Your task to perform on an android device: star an email in the gmail app Image 0: 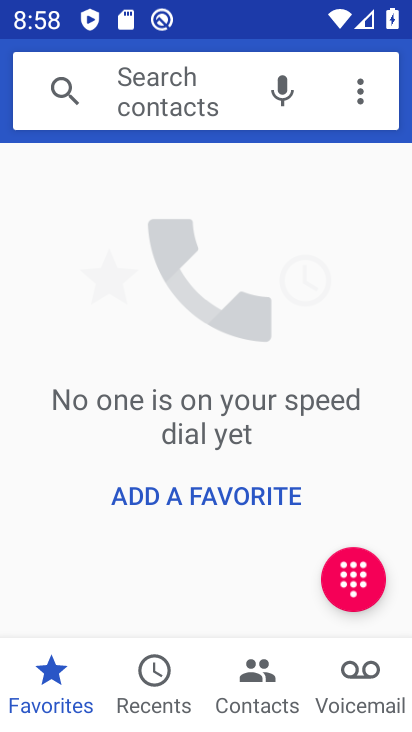
Step 0: press home button
Your task to perform on an android device: star an email in the gmail app Image 1: 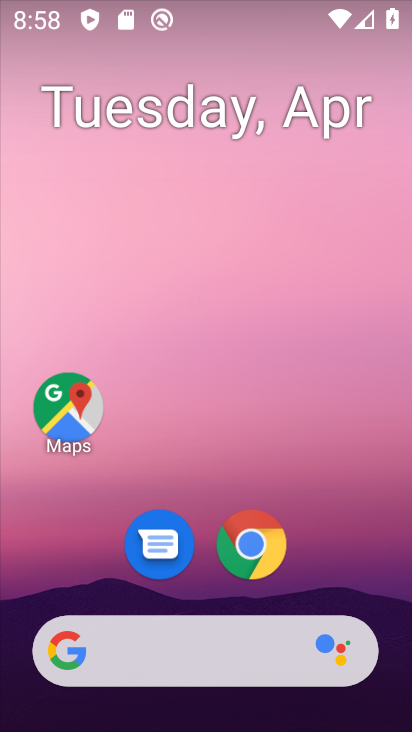
Step 1: drag from (314, 201) to (314, 127)
Your task to perform on an android device: star an email in the gmail app Image 2: 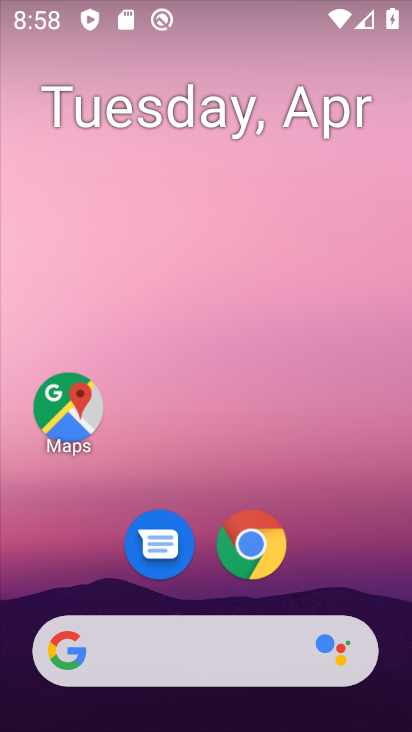
Step 2: drag from (334, 504) to (347, 155)
Your task to perform on an android device: star an email in the gmail app Image 3: 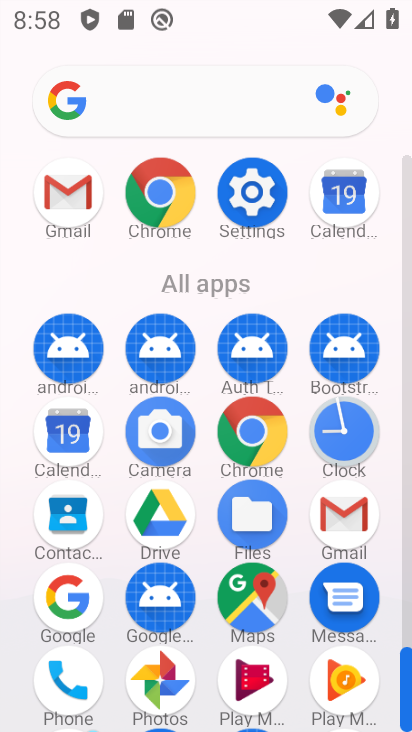
Step 3: click (359, 513)
Your task to perform on an android device: star an email in the gmail app Image 4: 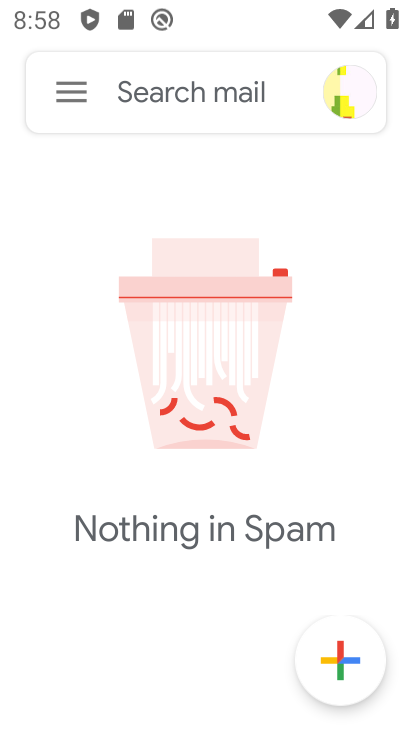
Step 4: click (65, 99)
Your task to perform on an android device: star an email in the gmail app Image 5: 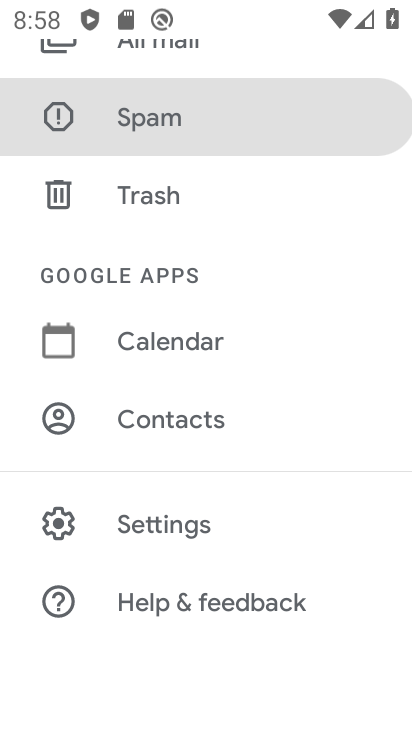
Step 5: drag from (224, 194) to (229, 545)
Your task to perform on an android device: star an email in the gmail app Image 6: 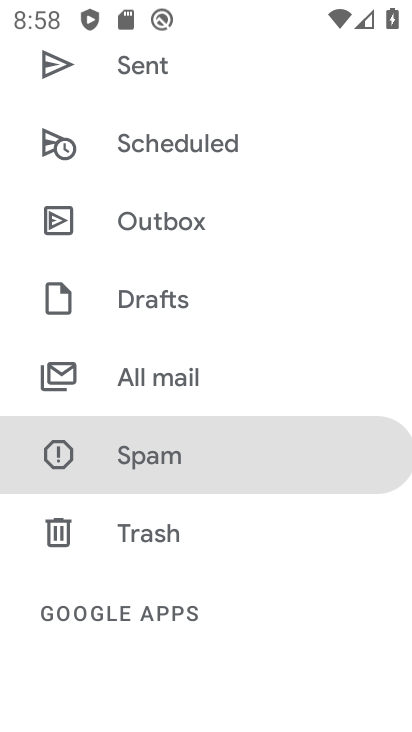
Step 6: drag from (281, 300) to (256, 599)
Your task to perform on an android device: star an email in the gmail app Image 7: 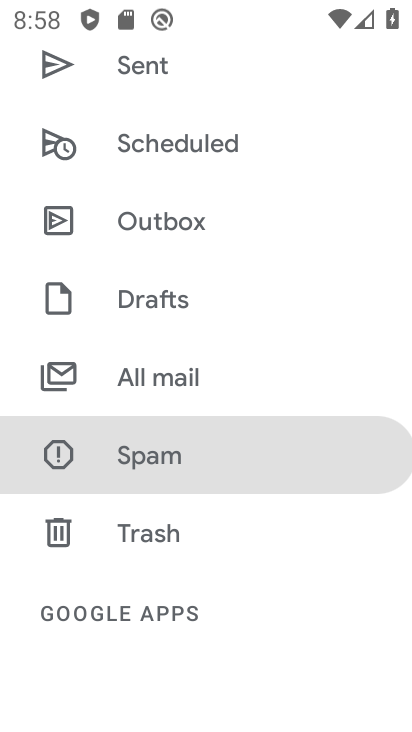
Step 7: drag from (254, 316) to (234, 628)
Your task to perform on an android device: star an email in the gmail app Image 8: 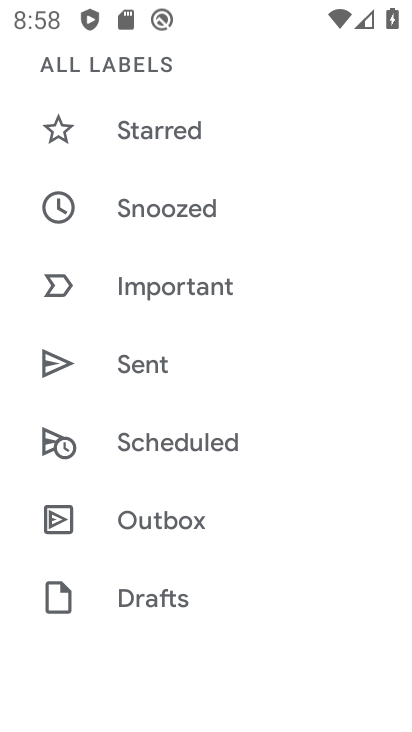
Step 8: drag from (278, 171) to (243, 575)
Your task to perform on an android device: star an email in the gmail app Image 9: 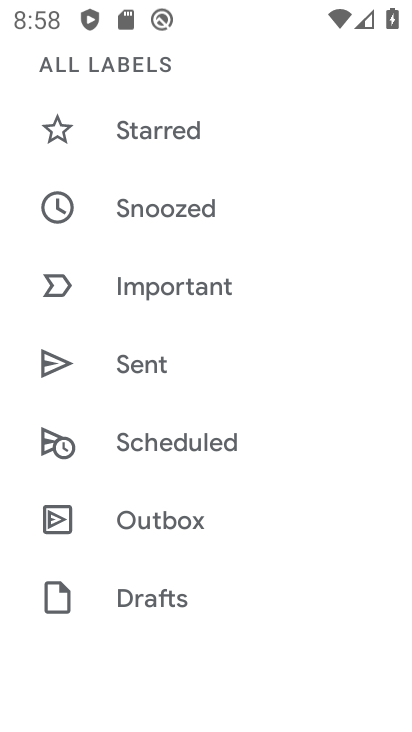
Step 9: drag from (206, 175) to (189, 542)
Your task to perform on an android device: star an email in the gmail app Image 10: 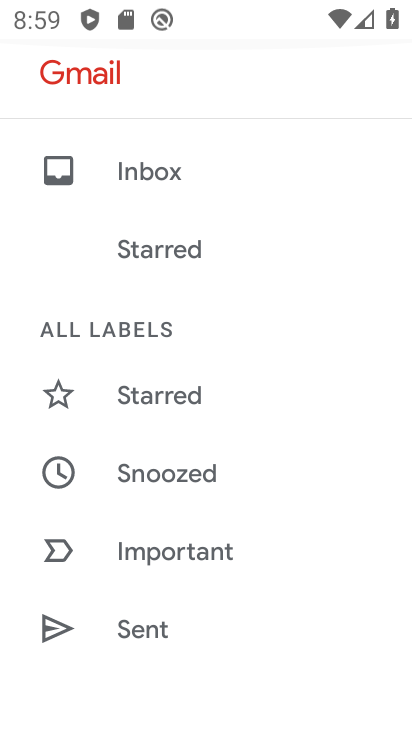
Step 10: click (179, 194)
Your task to perform on an android device: star an email in the gmail app Image 11: 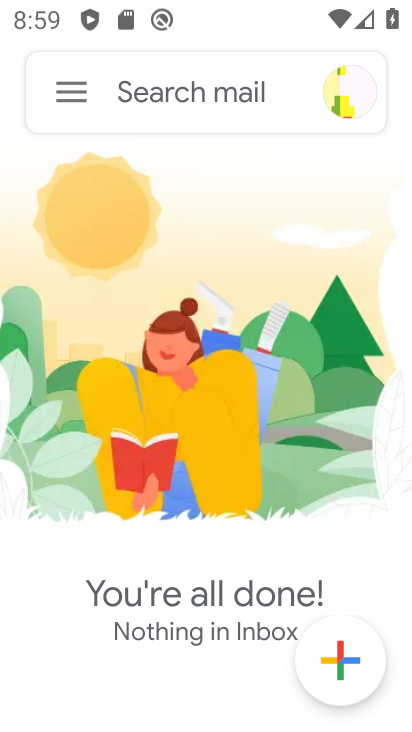
Step 11: click (69, 103)
Your task to perform on an android device: star an email in the gmail app Image 12: 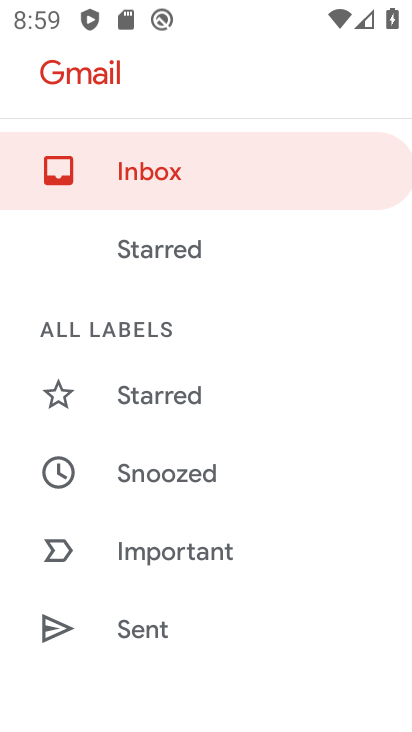
Step 12: click (179, 181)
Your task to perform on an android device: star an email in the gmail app Image 13: 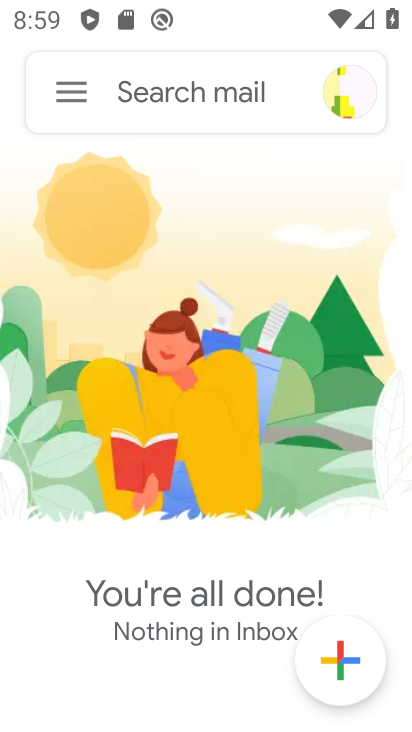
Step 13: task complete